Your task to perform on an android device: Go to Yahoo.com Image 0: 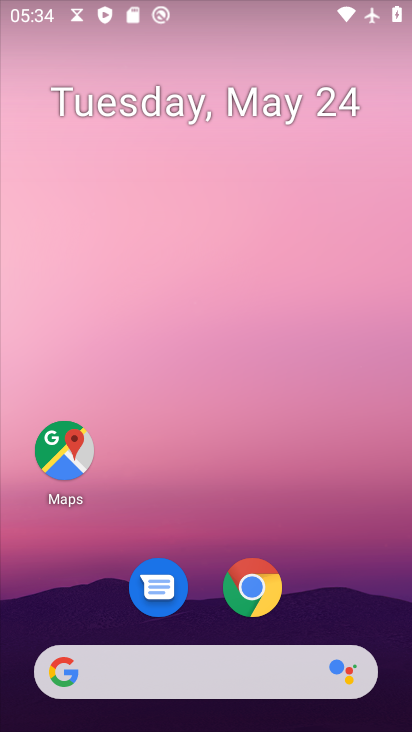
Step 0: drag from (363, 560) to (208, 1)
Your task to perform on an android device: Go to Yahoo.com Image 1: 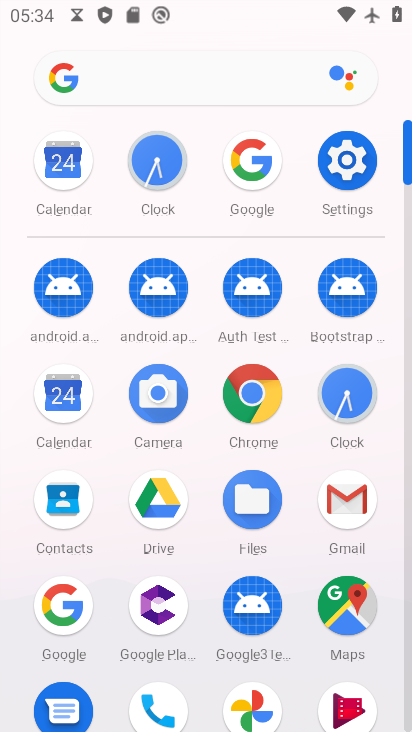
Step 1: click (259, 389)
Your task to perform on an android device: Go to Yahoo.com Image 2: 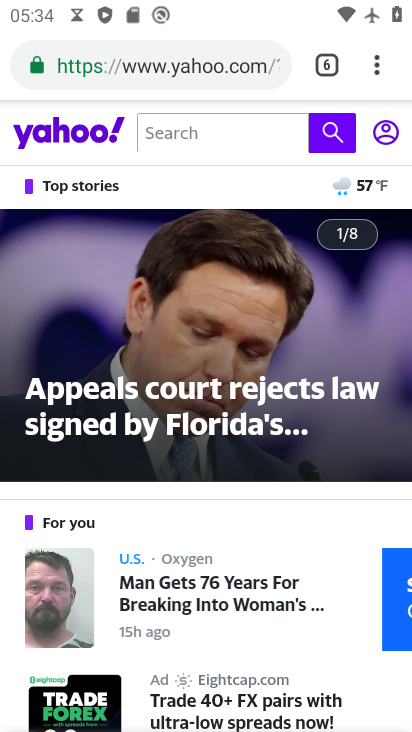
Step 2: task complete